Your task to perform on an android device: Check the news Image 0: 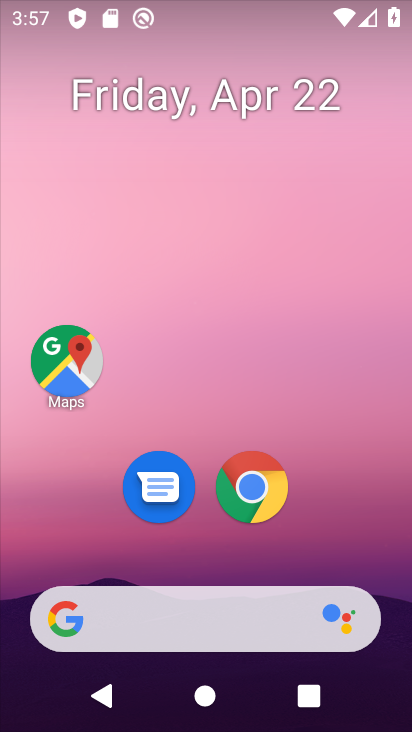
Step 0: click (181, 643)
Your task to perform on an android device: Check the news Image 1: 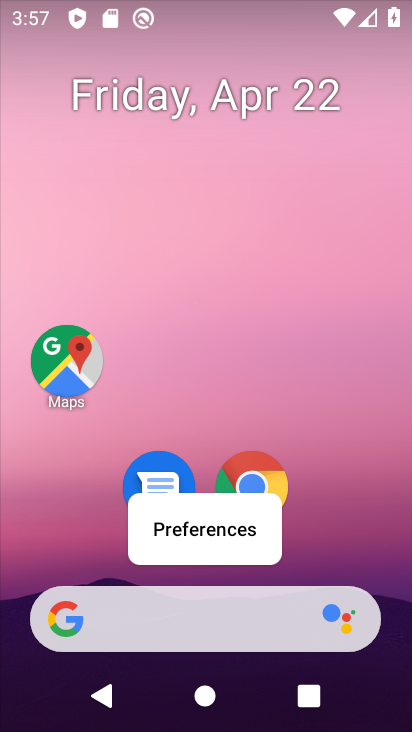
Step 1: click (183, 629)
Your task to perform on an android device: Check the news Image 2: 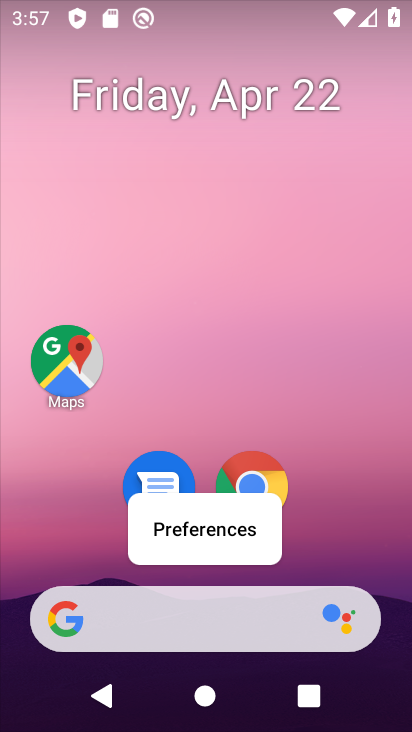
Step 2: click (185, 629)
Your task to perform on an android device: Check the news Image 3: 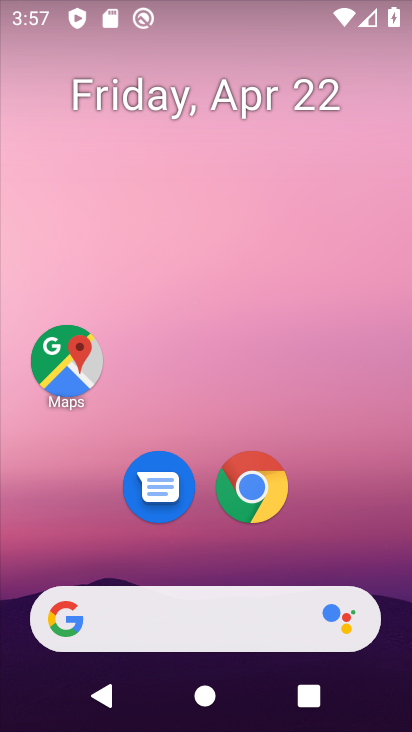
Step 3: click (185, 629)
Your task to perform on an android device: Check the news Image 4: 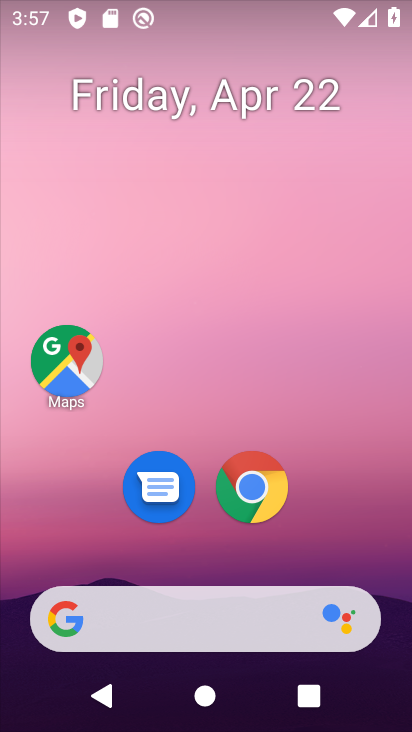
Step 4: click (194, 630)
Your task to perform on an android device: Check the news Image 5: 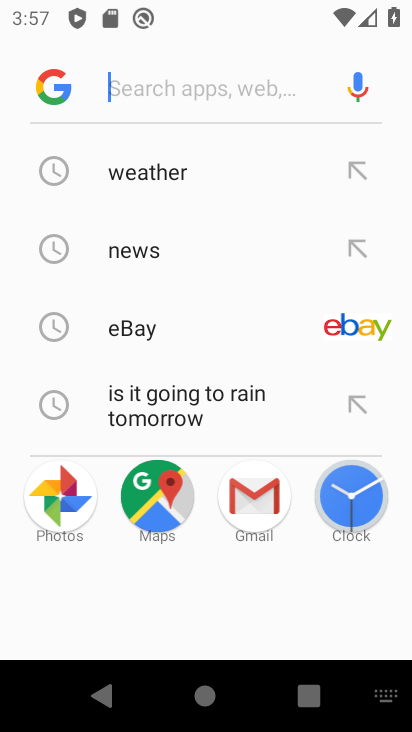
Step 5: type "news"
Your task to perform on an android device: Check the news Image 6: 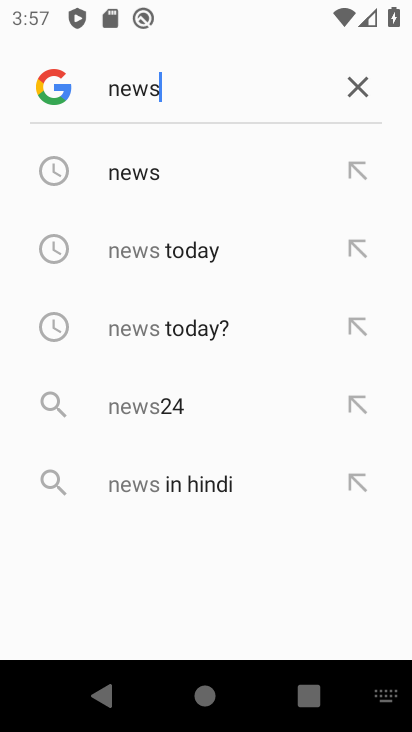
Step 6: click (150, 185)
Your task to perform on an android device: Check the news Image 7: 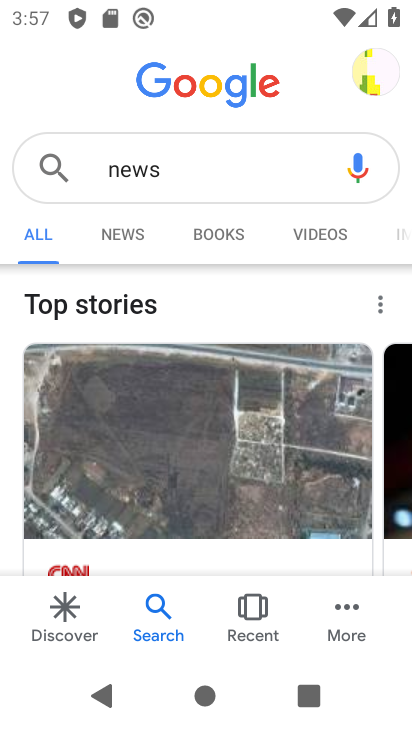
Step 7: click (133, 231)
Your task to perform on an android device: Check the news Image 8: 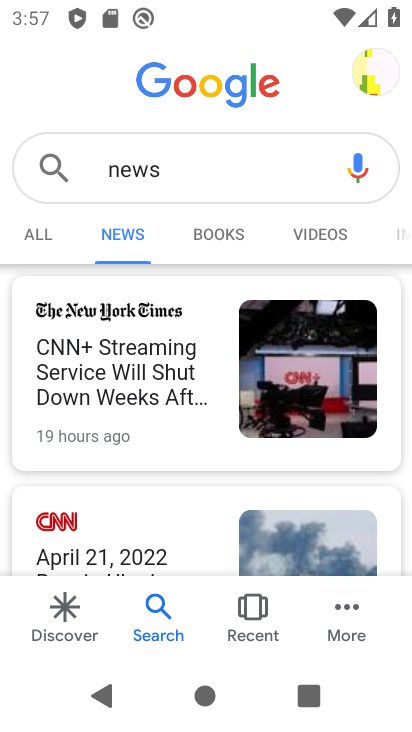
Step 8: task complete